Your task to perform on an android device: Go to sound settings Image 0: 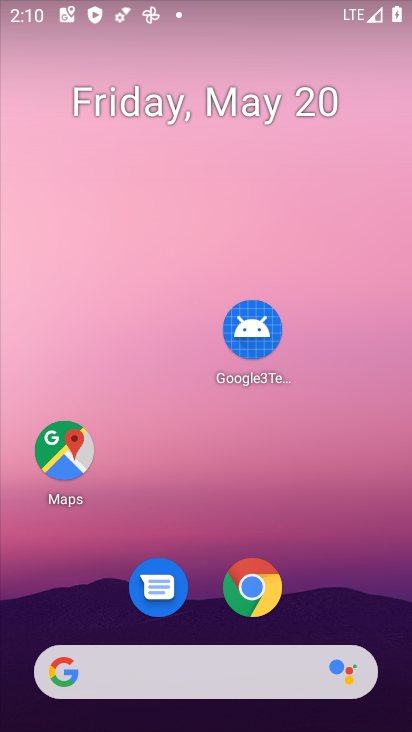
Step 0: drag from (342, 579) to (256, 70)
Your task to perform on an android device: Go to sound settings Image 1: 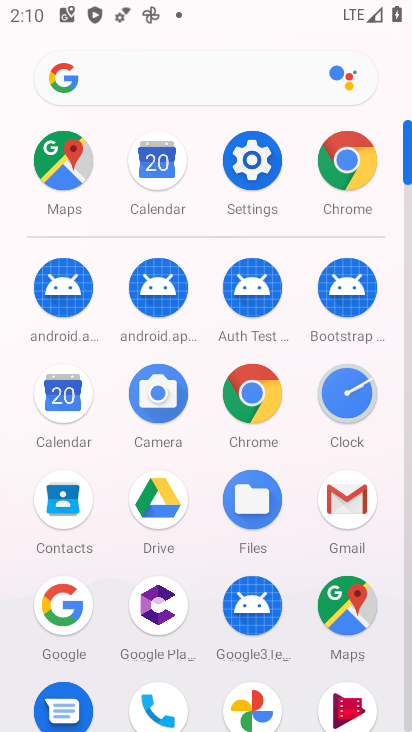
Step 1: click (255, 154)
Your task to perform on an android device: Go to sound settings Image 2: 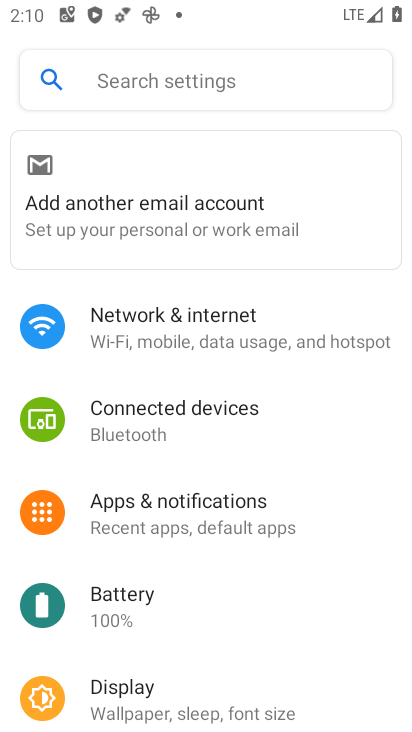
Step 2: drag from (237, 591) to (216, 260)
Your task to perform on an android device: Go to sound settings Image 3: 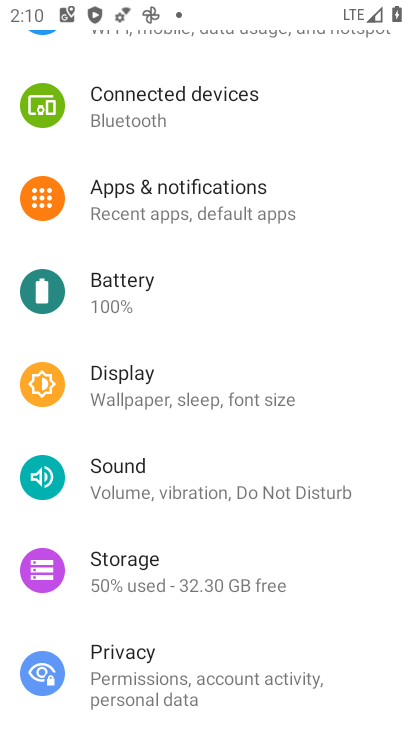
Step 3: click (114, 473)
Your task to perform on an android device: Go to sound settings Image 4: 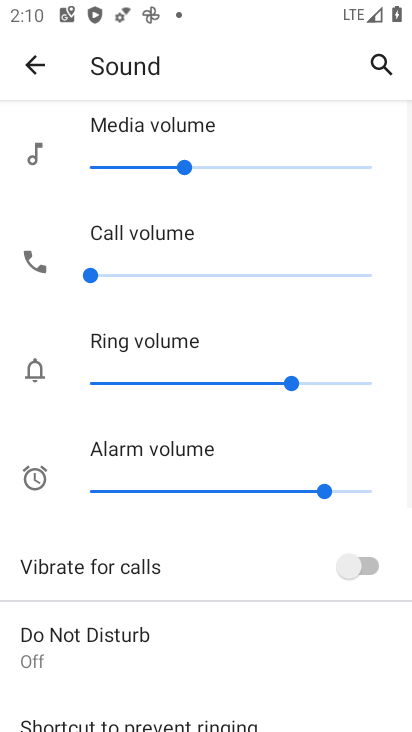
Step 4: task complete